Your task to perform on an android device: change timer sound Image 0: 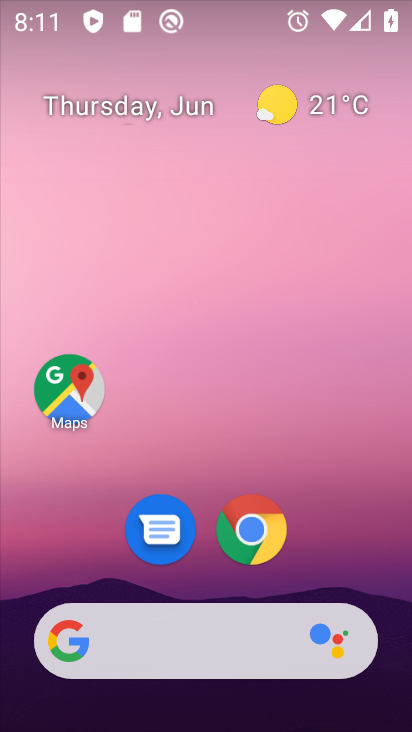
Step 0: drag from (391, 701) to (357, 143)
Your task to perform on an android device: change timer sound Image 1: 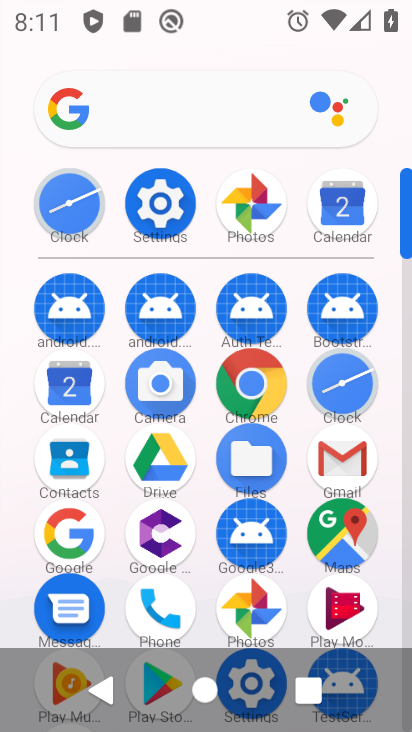
Step 1: click (355, 367)
Your task to perform on an android device: change timer sound Image 2: 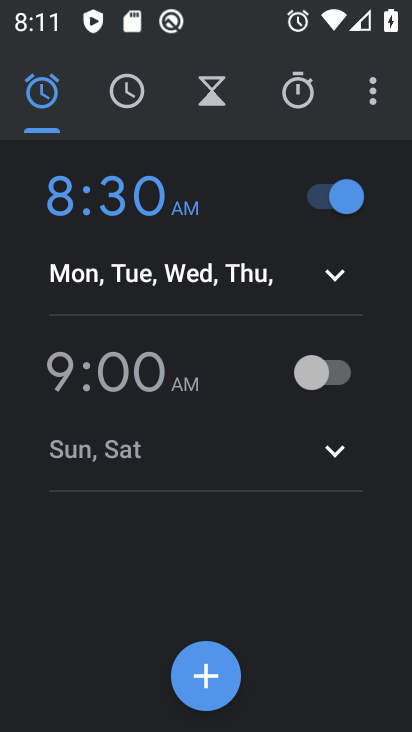
Step 2: click (217, 90)
Your task to perform on an android device: change timer sound Image 3: 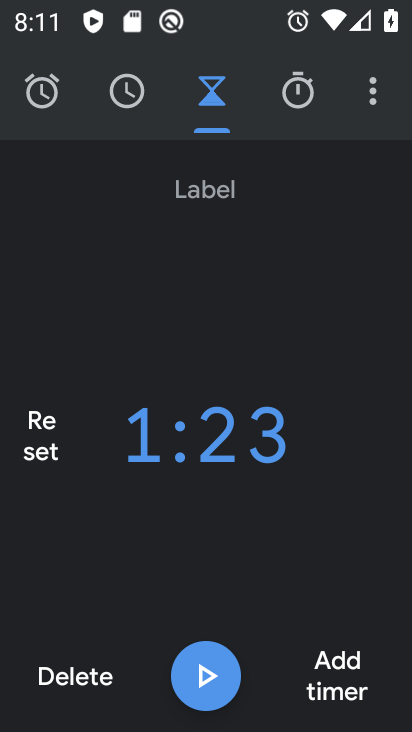
Step 3: click (367, 88)
Your task to perform on an android device: change timer sound Image 4: 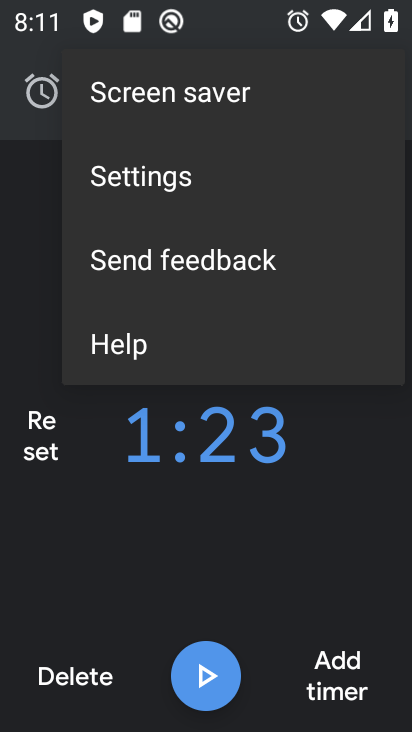
Step 4: click (369, 92)
Your task to perform on an android device: change timer sound Image 5: 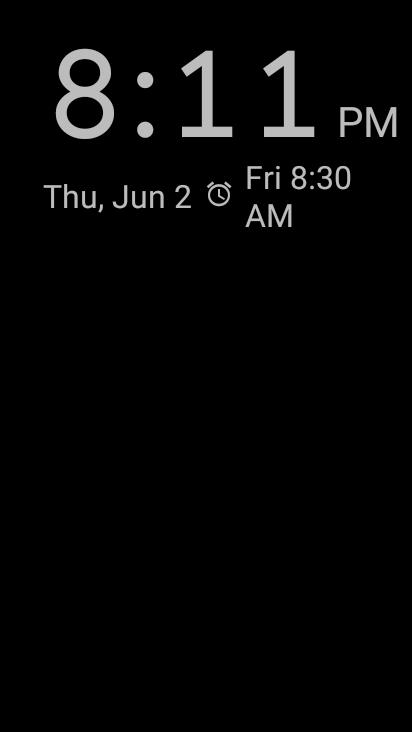
Step 5: press back button
Your task to perform on an android device: change timer sound Image 6: 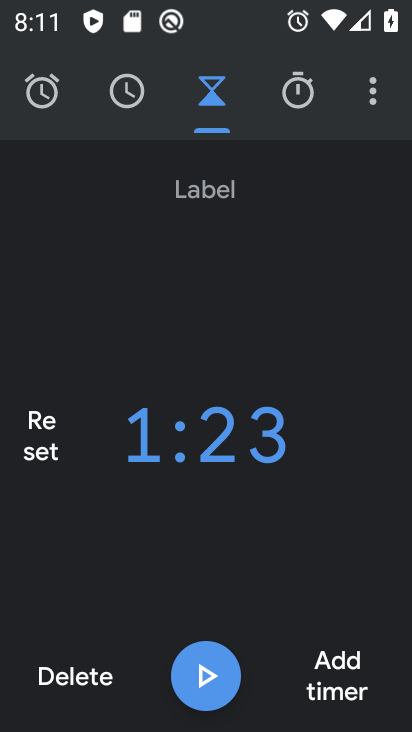
Step 6: click (373, 92)
Your task to perform on an android device: change timer sound Image 7: 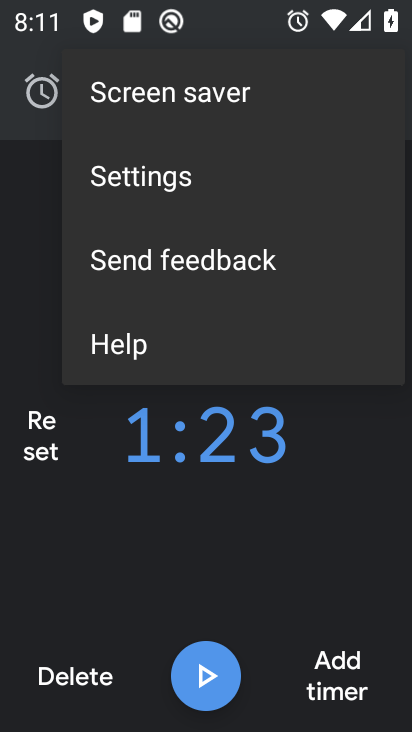
Step 7: click (149, 180)
Your task to perform on an android device: change timer sound Image 8: 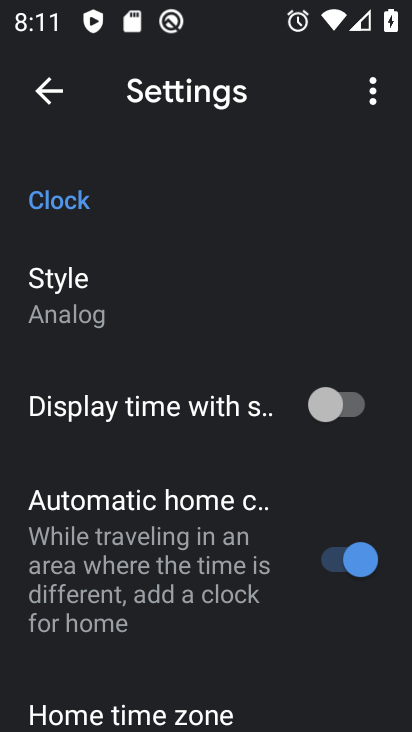
Step 8: drag from (194, 628) to (193, 268)
Your task to perform on an android device: change timer sound Image 9: 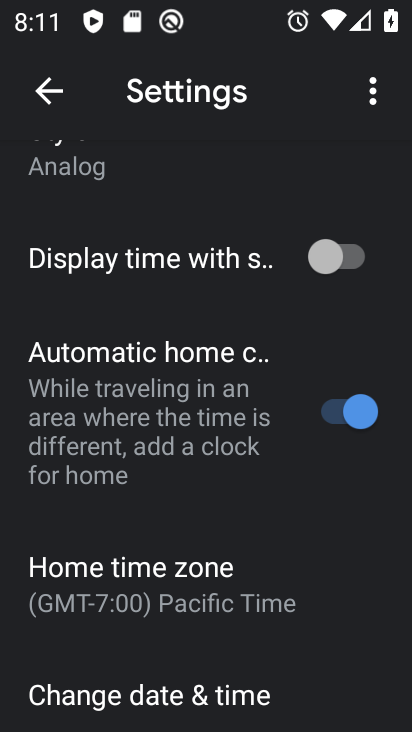
Step 9: drag from (278, 702) to (250, 198)
Your task to perform on an android device: change timer sound Image 10: 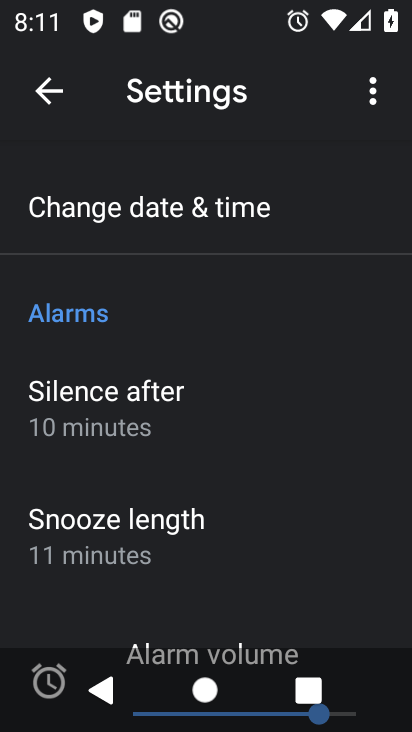
Step 10: drag from (279, 630) to (250, 219)
Your task to perform on an android device: change timer sound Image 11: 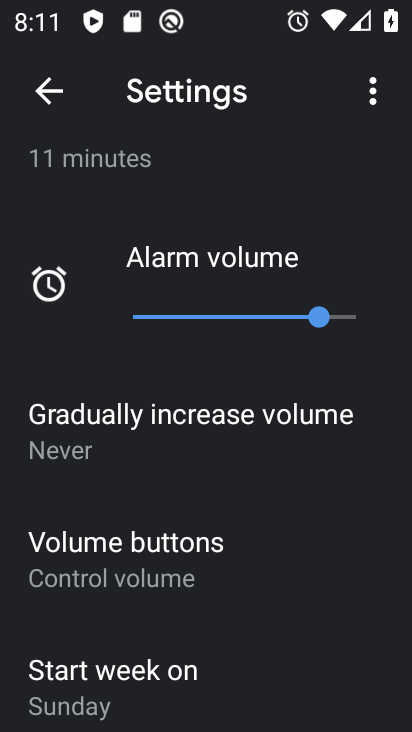
Step 11: drag from (247, 626) to (220, 361)
Your task to perform on an android device: change timer sound Image 12: 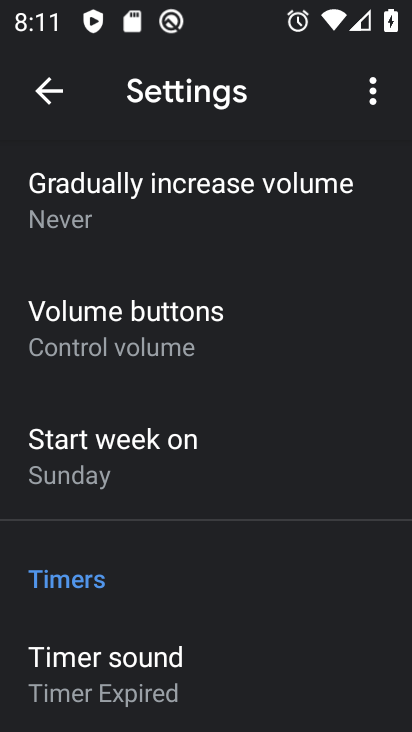
Step 12: click (96, 668)
Your task to perform on an android device: change timer sound Image 13: 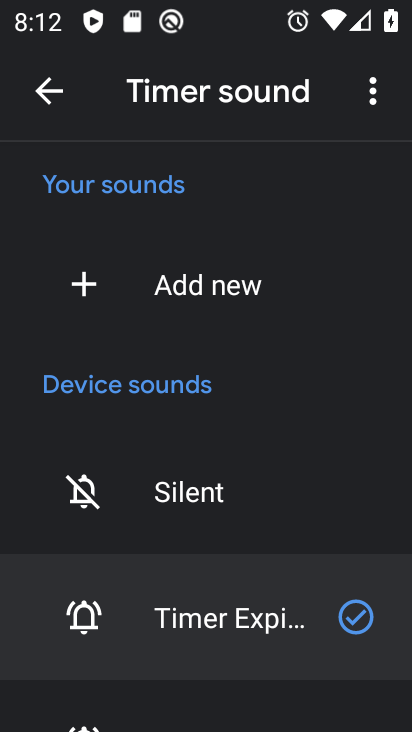
Step 13: drag from (174, 710) to (203, 407)
Your task to perform on an android device: change timer sound Image 14: 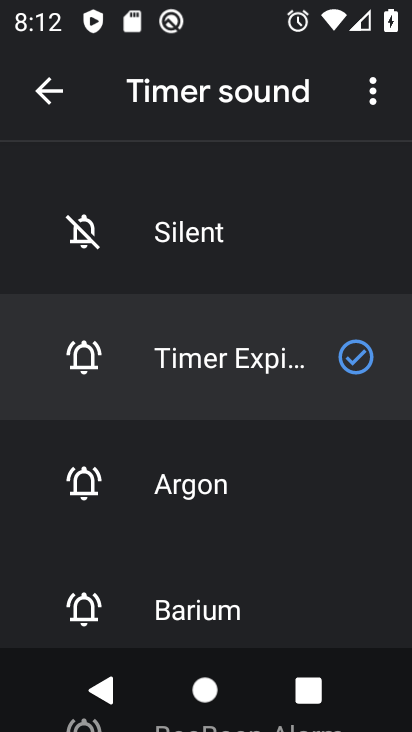
Step 14: click (163, 614)
Your task to perform on an android device: change timer sound Image 15: 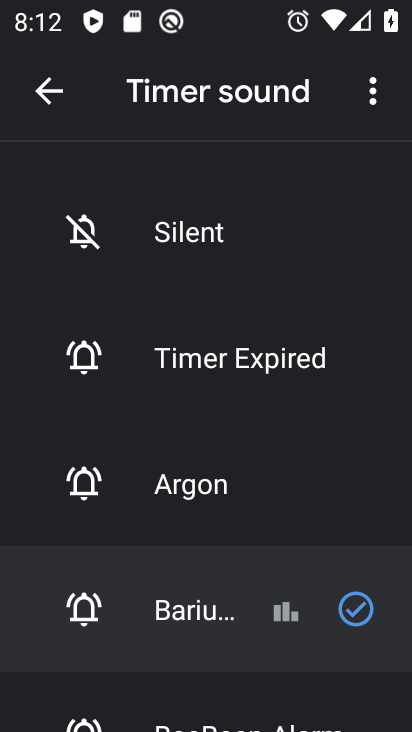
Step 15: task complete